Your task to perform on an android device: delete a single message in the gmail app Image 0: 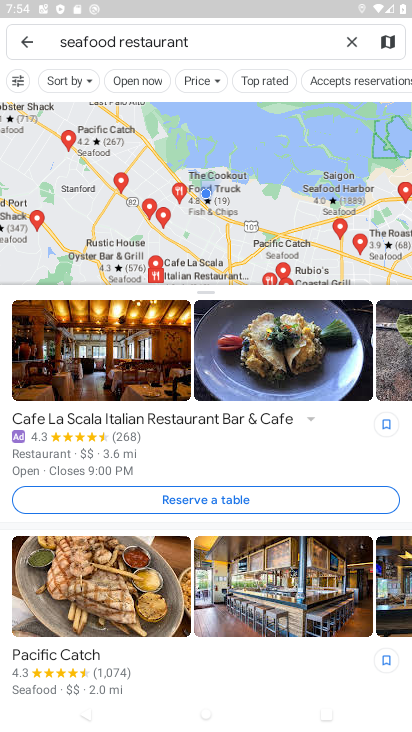
Step 0: press home button
Your task to perform on an android device: delete a single message in the gmail app Image 1: 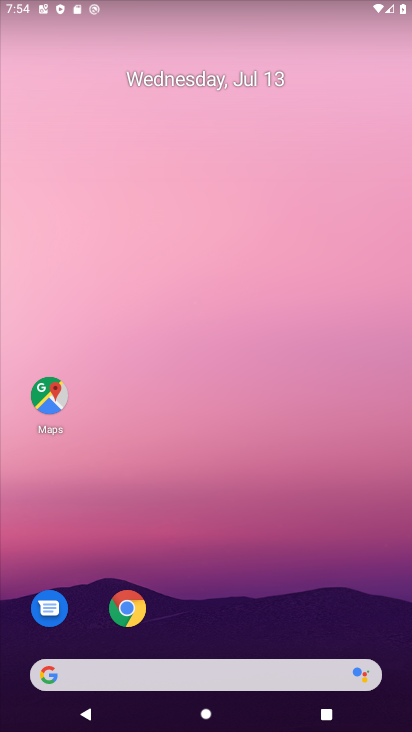
Step 1: drag from (198, 595) to (122, 65)
Your task to perform on an android device: delete a single message in the gmail app Image 2: 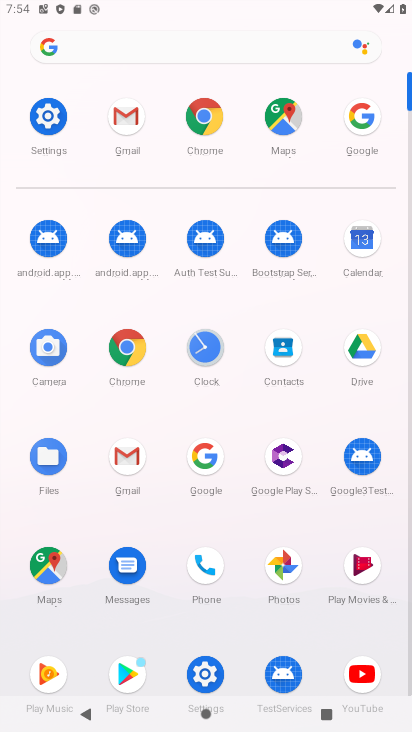
Step 2: click (130, 473)
Your task to perform on an android device: delete a single message in the gmail app Image 3: 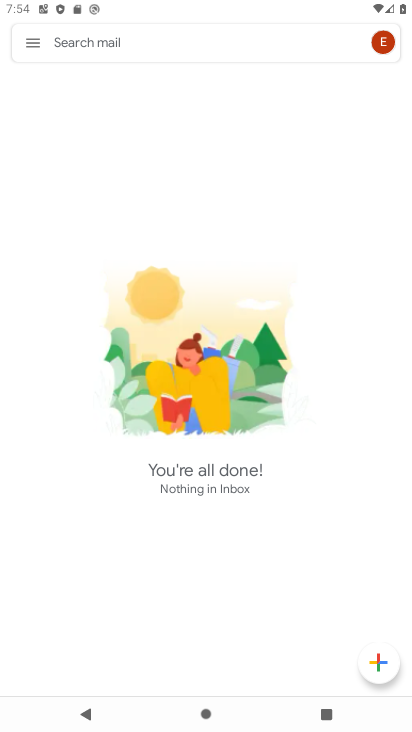
Step 3: click (31, 45)
Your task to perform on an android device: delete a single message in the gmail app Image 4: 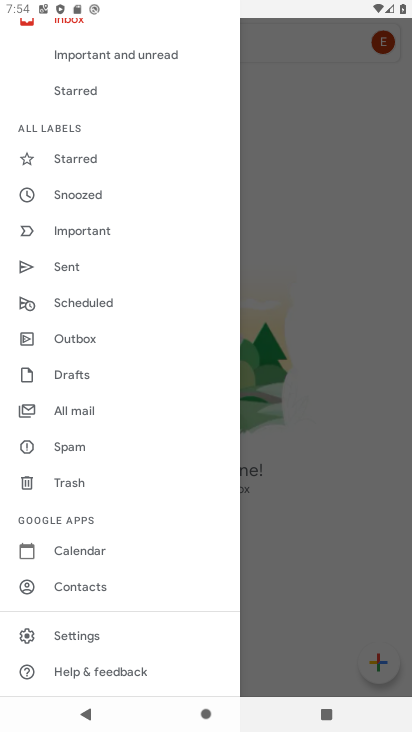
Step 4: click (68, 413)
Your task to perform on an android device: delete a single message in the gmail app Image 5: 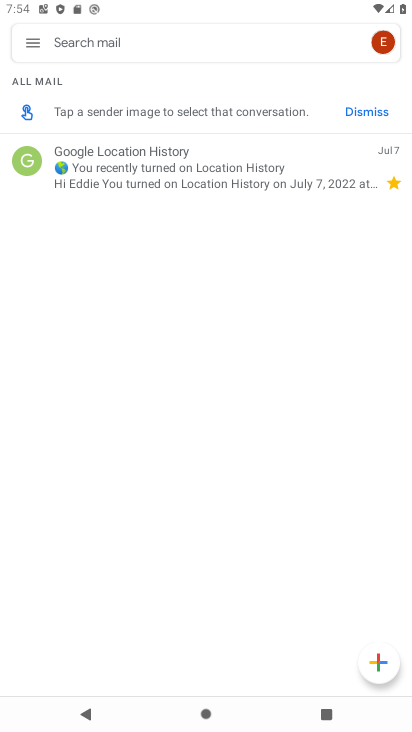
Step 5: click (154, 174)
Your task to perform on an android device: delete a single message in the gmail app Image 6: 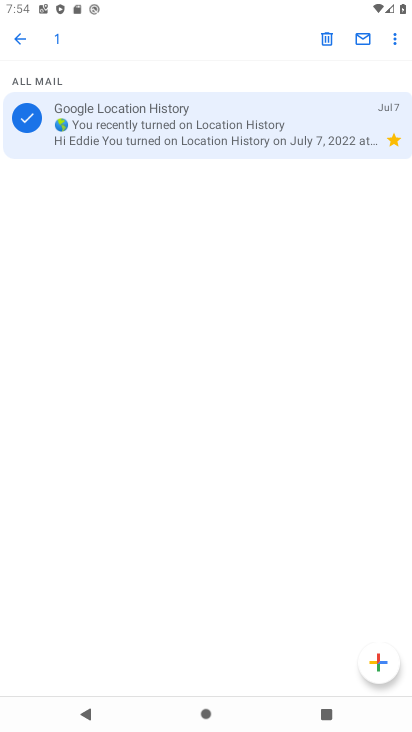
Step 6: click (326, 38)
Your task to perform on an android device: delete a single message in the gmail app Image 7: 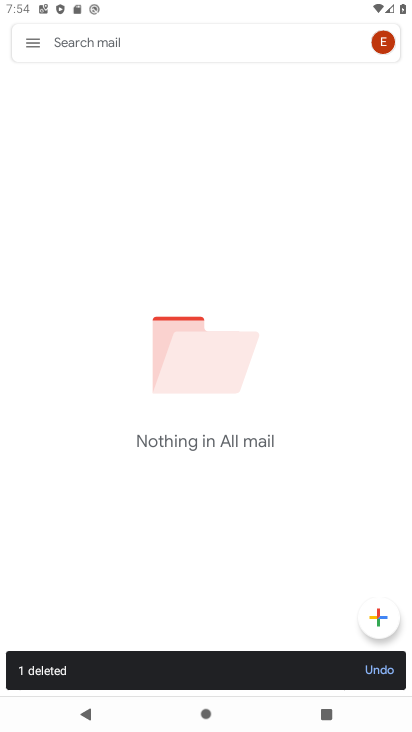
Step 7: task complete